Your task to perform on an android device: turn on notifications settings in the gmail app Image 0: 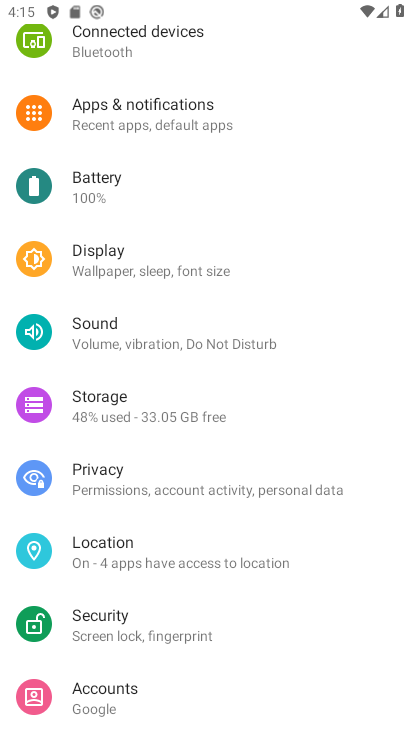
Step 0: press back button
Your task to perform on an android device: turn on notifications settings in the gmail app Image 1: 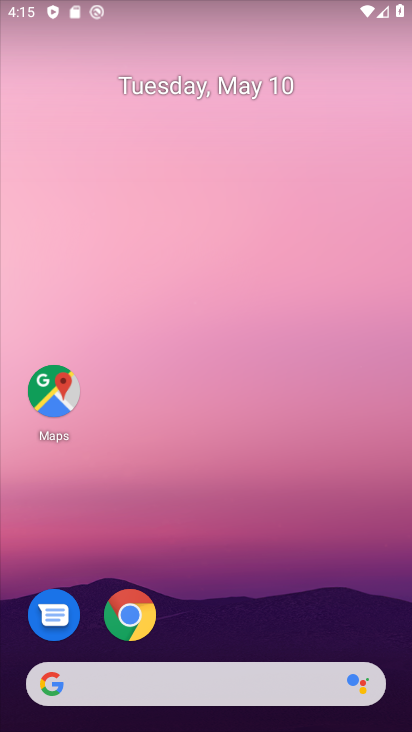
Step 1: drag from (183, 660) to (290, 163)
Your task to perform on an android device: turn on notifications settings in the gmail app Image 2: 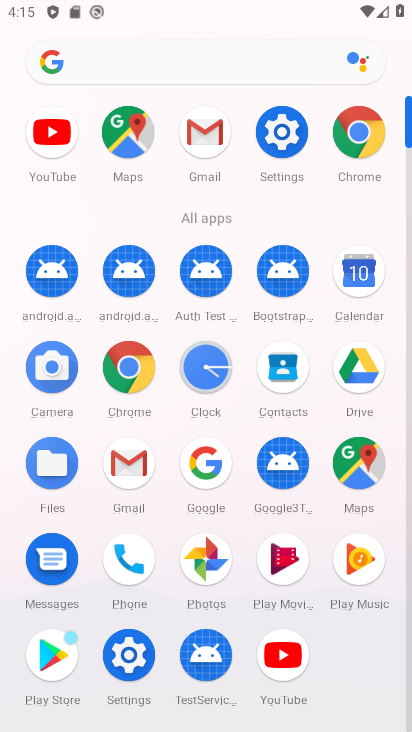
Step 2: click (127, 466)
Your task to perform on an android device: turn on notifications settings in the gmail app Image 3: 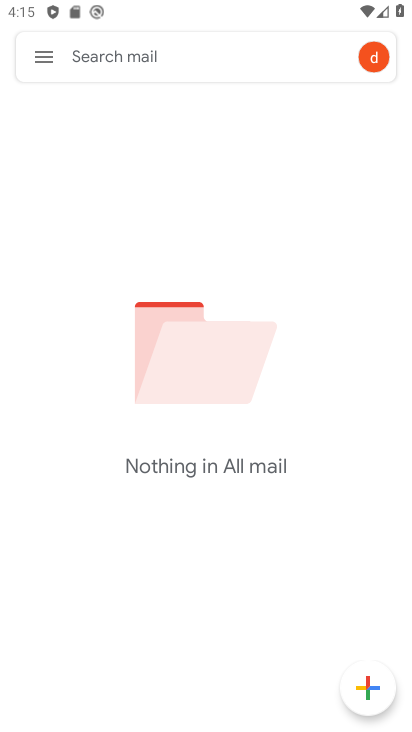
Step 3: click (52, 51)
Your task to perform on an android device: turn on notifications settings in the gmail app Image 4: 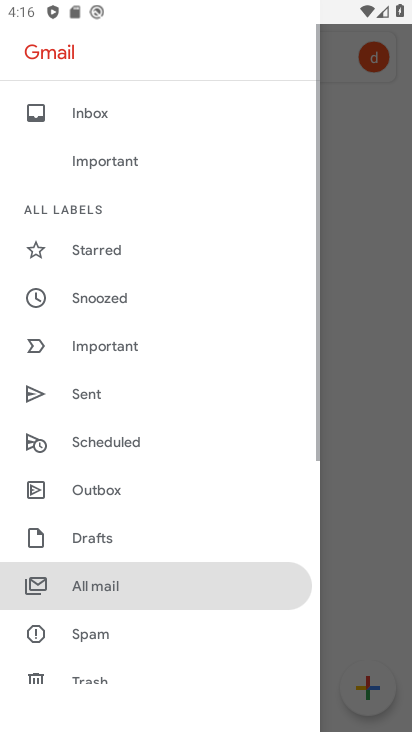
Step 4: drag from (126, 632) to (210, 267)
Your task to perform on an android device: turn on notifications settings in the gmail app Image 5: 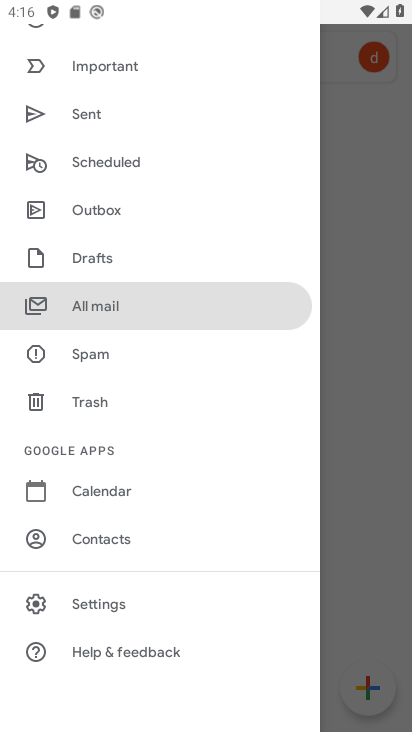
Step 5: click (140, 592)
Your task to perform on an android device: turn on notifications settings in the gmail app Image 6: 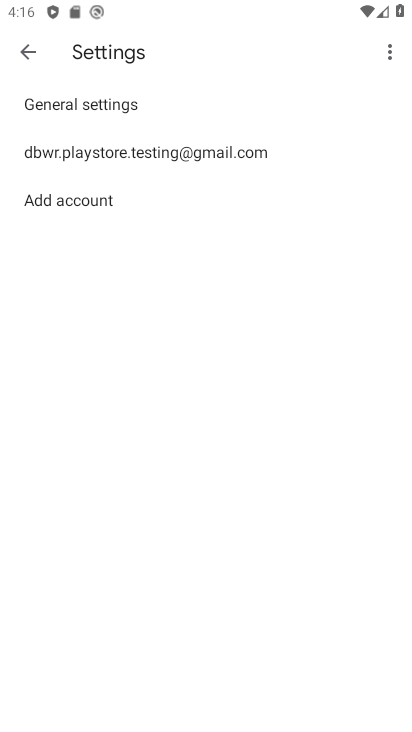
Step 6: click (253, 153)
Your task to perform on an android device: turn on notifications settings in the gmail app Image 7: 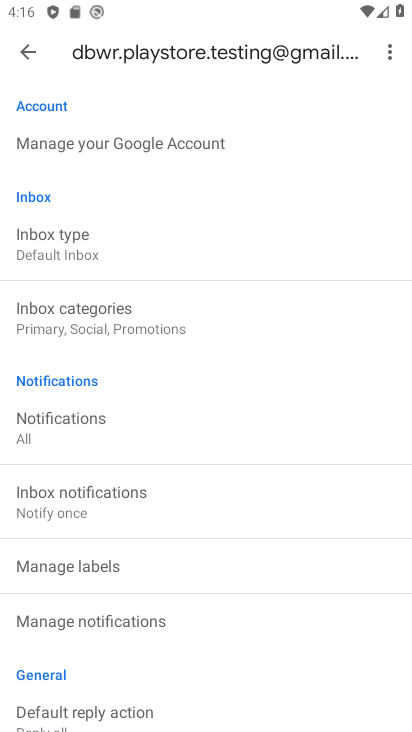
Step 7: click (173, 635)
Your task to perform on an android device: turn on notifications settings in the gmail app Image 8: 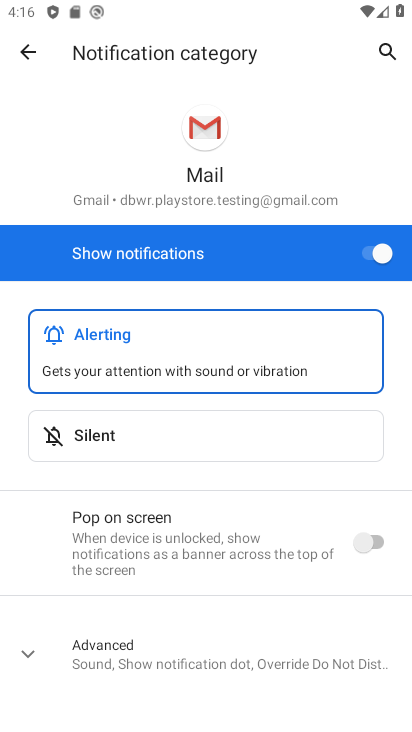
Step 8: task complete